Your task to perform on an android device: Go to Google Image 0: 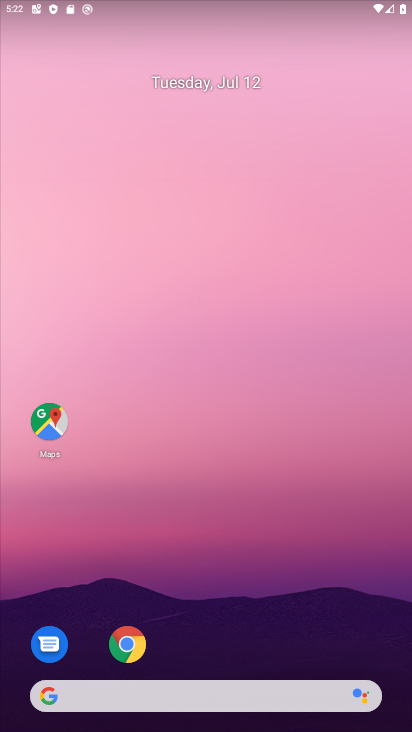
Step 0: drag from (243, 547) to (214, 20)
Your task to perform on an android device: Go to Google Image 1: 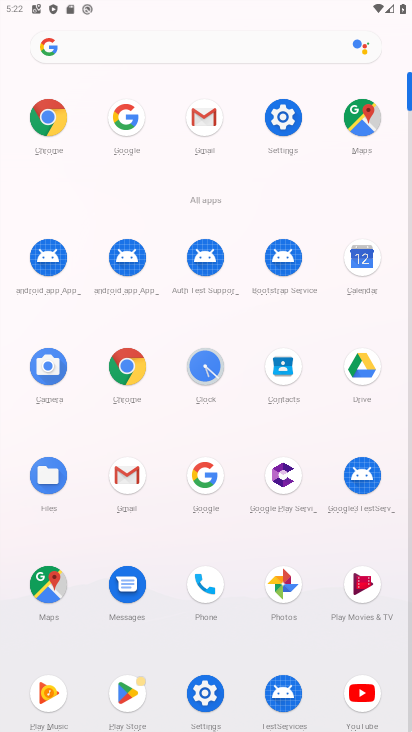
Step 1: click (209, 475)
Your task to perform on an android device: Go to Google Image 2: 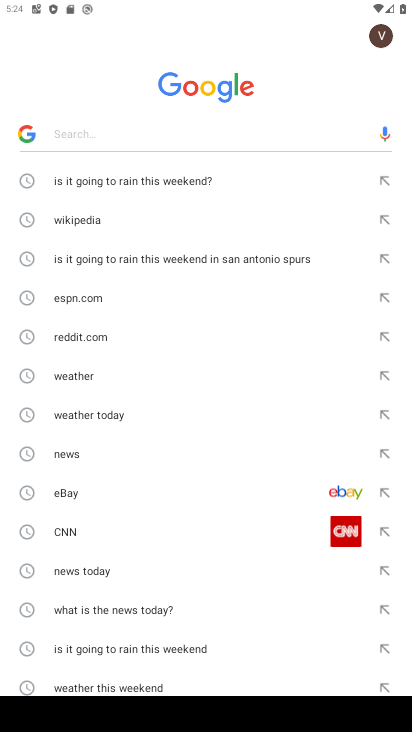
Step 2: task complete